Your task to perform on an android device: What's a good restaurant near me? Image 0: 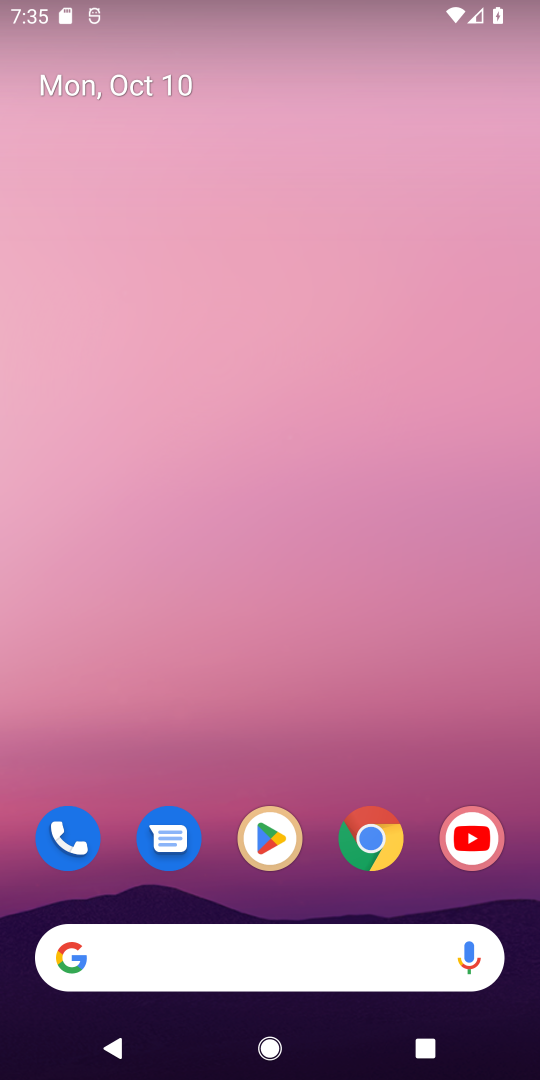
Step 0: drag from (317, 886) to (290, 153)
Your task to perform on an android device: What's a good restaurant near me? Image 1: 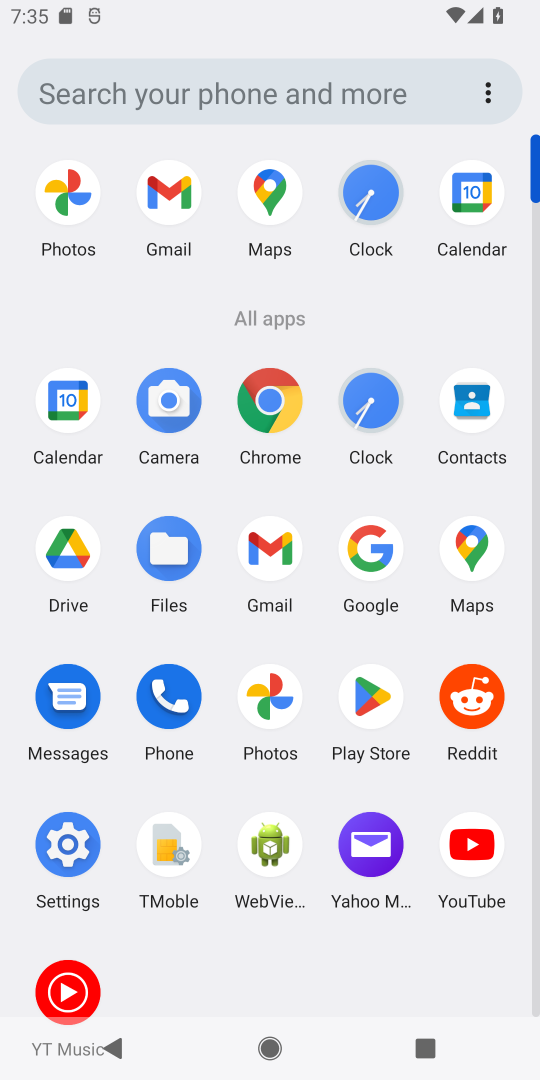
Step 1: click (471, 541)
Your task to perform on an android device: What's a good restaurant near me? Image 2: 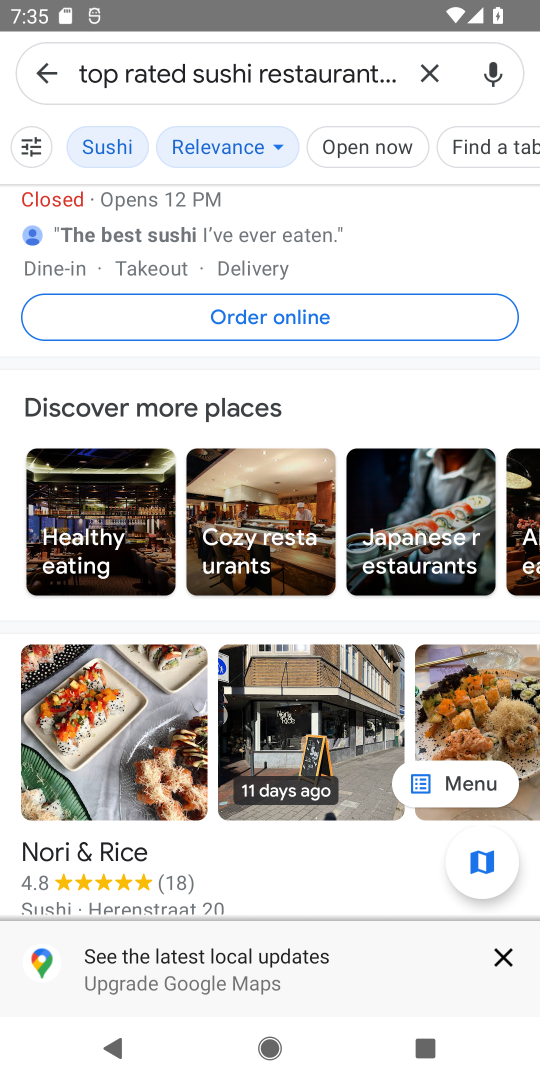
Step 2: click (428, 66)
Your task to perform on an android device: What's a good restaurant near me? Image 3: 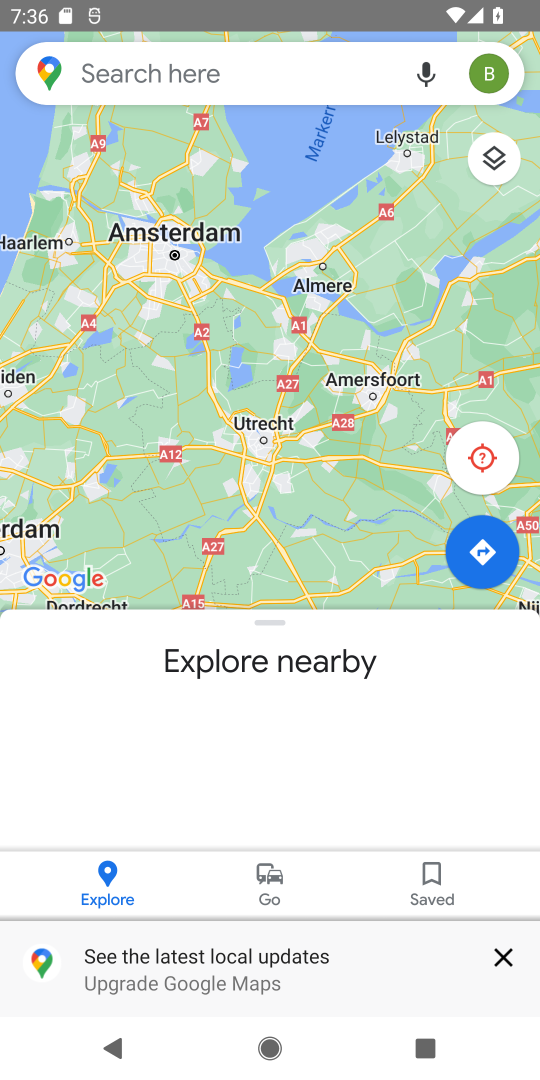
Step 3: click (160, 68)
Your task to perform on an android device: What's a good restaurant near me? Image 4: 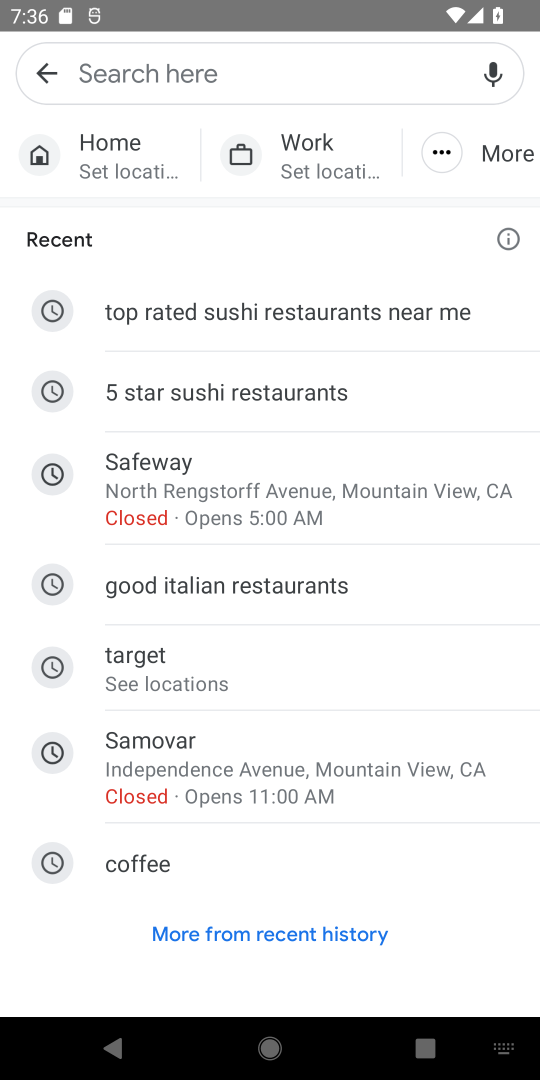
Step 4: type "good restaurant near me"
Your task to perform on an android device: What's a good restaurant near me? Image 5: 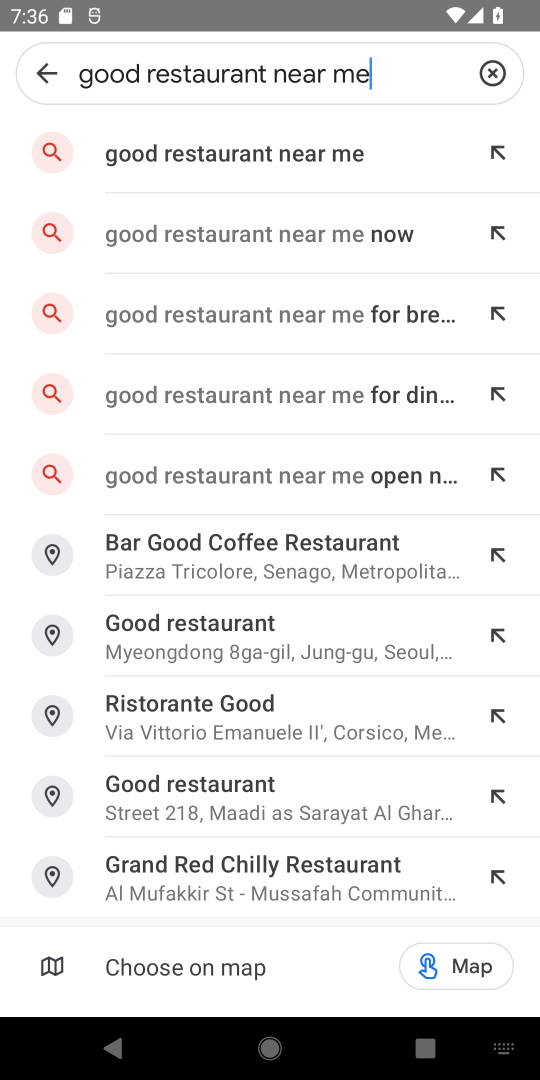
Step 5: click (202, 150)
Your task to perform on an android device: What's a good restaurant near me? Image 6: 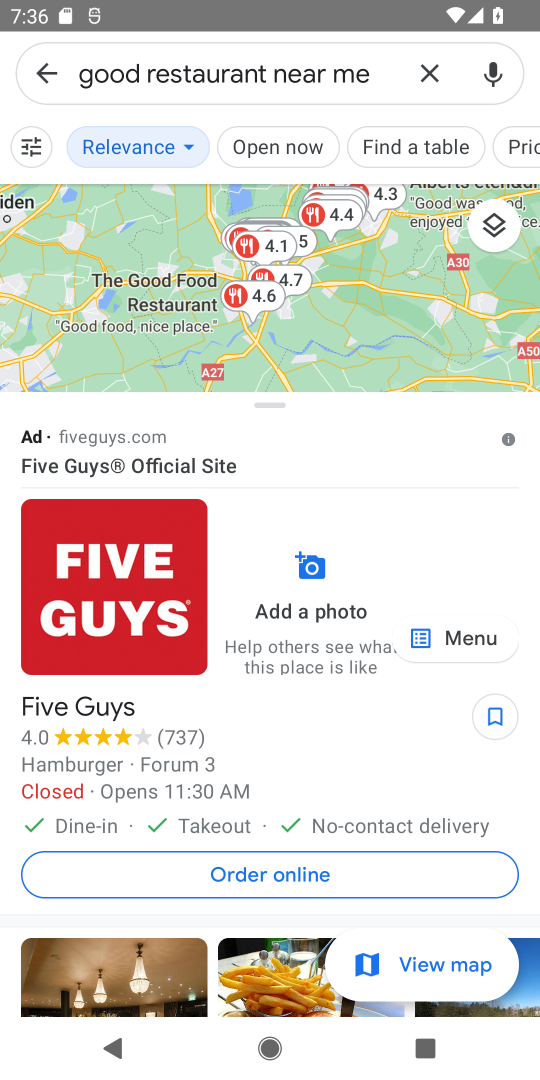
Step 6: task complete